Your task to perform on an android device: check google app version Image 0: 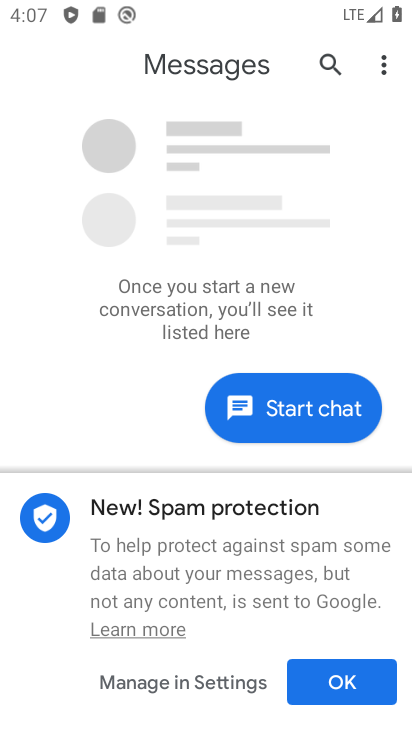
Step 0: press home button
Your task to perform on an android device: check google app version Image 1: 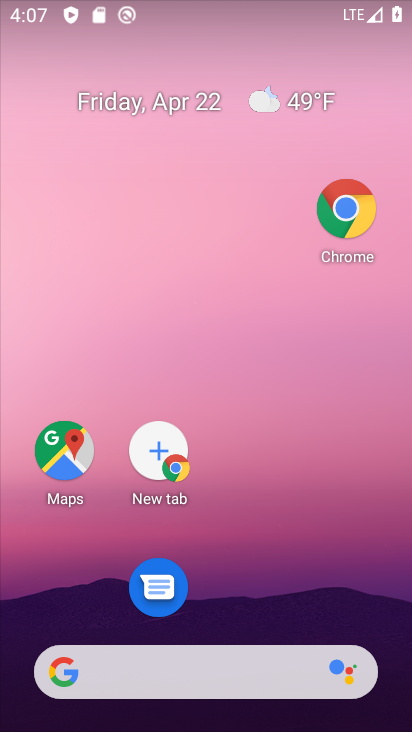
Step 1: click (176, 663)
Your task to perform on an android device: check google app version Image 2: 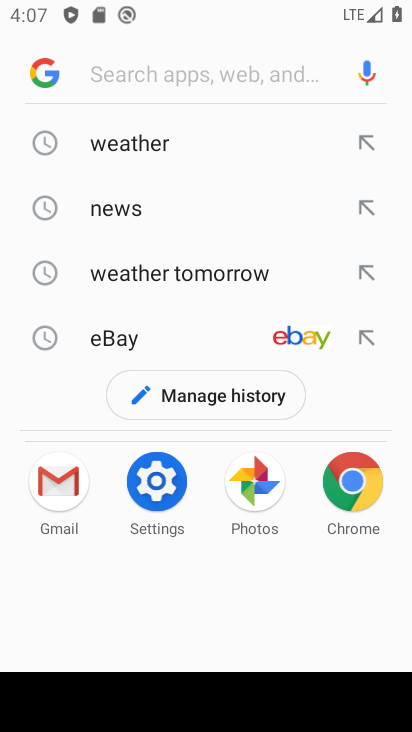
Step 2: click (44, 86)
Your task to perform on an android device: check google app version Image 3: 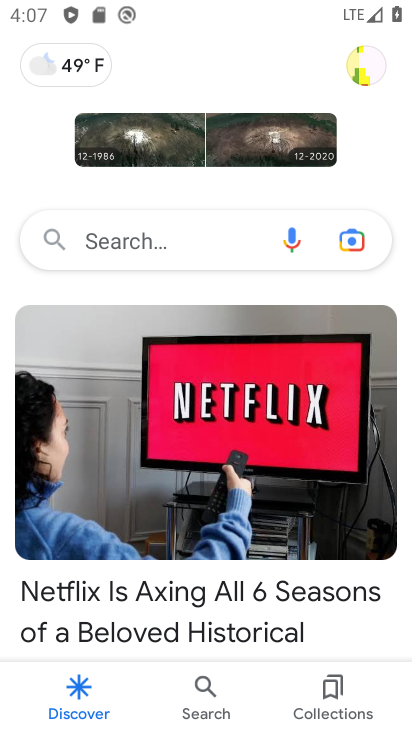
Step 3: click (385, 58)
Your task to perform on an android device: check google app version Image 4: 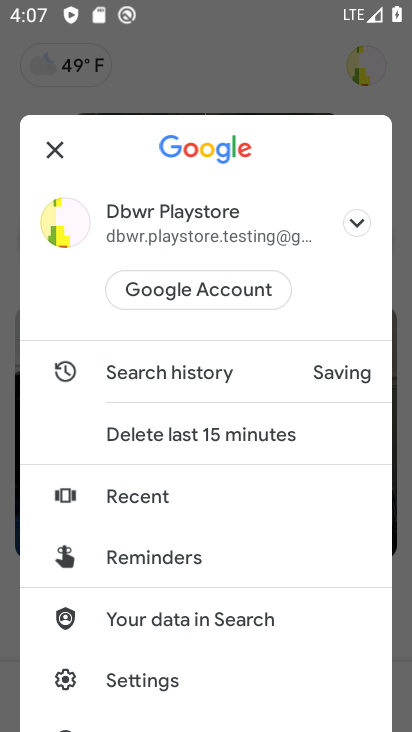
Step 4: click (152, 671)
Your task to perform on an android device: check google app version Image 5: 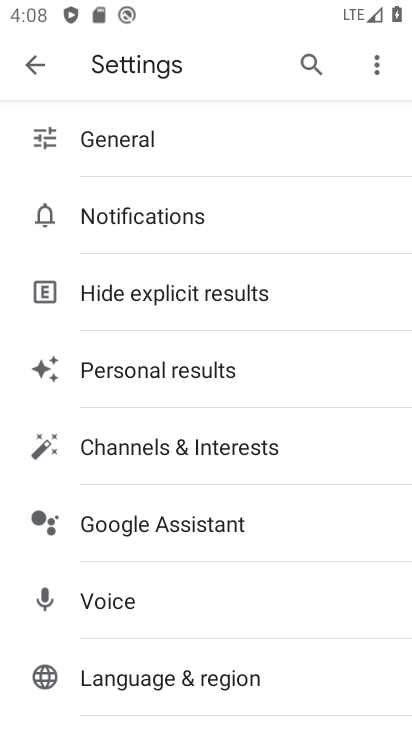
Step 5: drag from (217, 317) to (7, 695)
Your task to perform on an android device: check google app version Image 6: 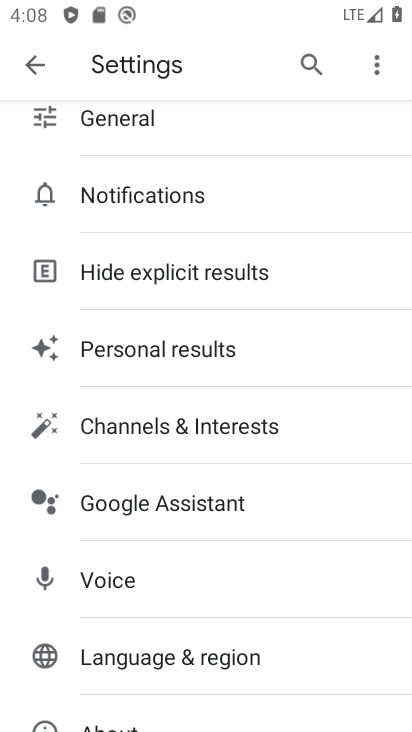
Step 6: drag from (235, 164) to (277, 685)
Your task to perform on an android device: check google app version Image 7: 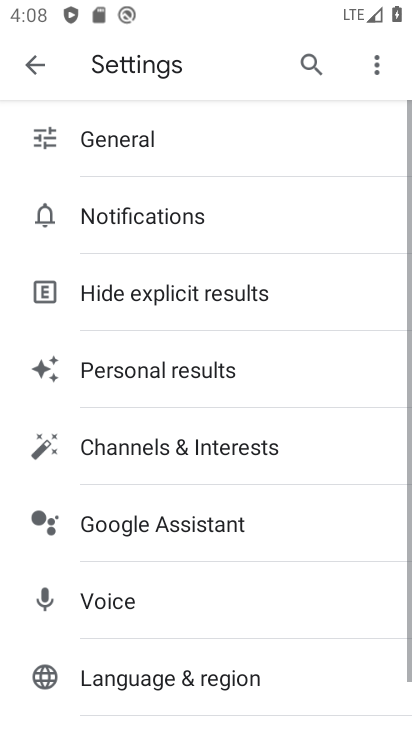
Step 7: drag from (152, 137) to (195, 625)
Your task to perform on an android device: check google app version Image 8: 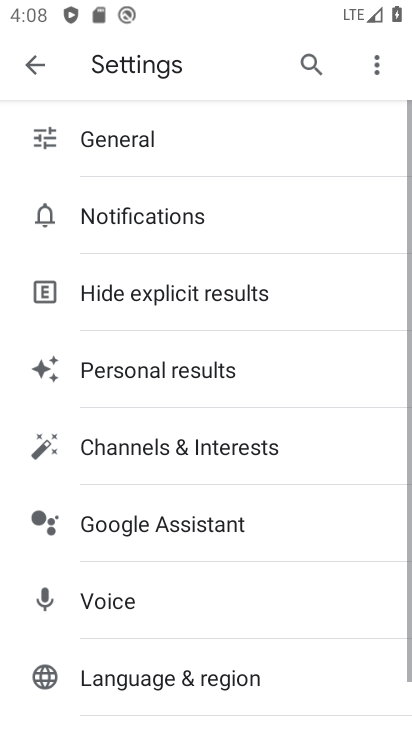
Step 8: drag from (90, 695) to (197, 23)
Your task to perform on an android device: check google app version Image 9: 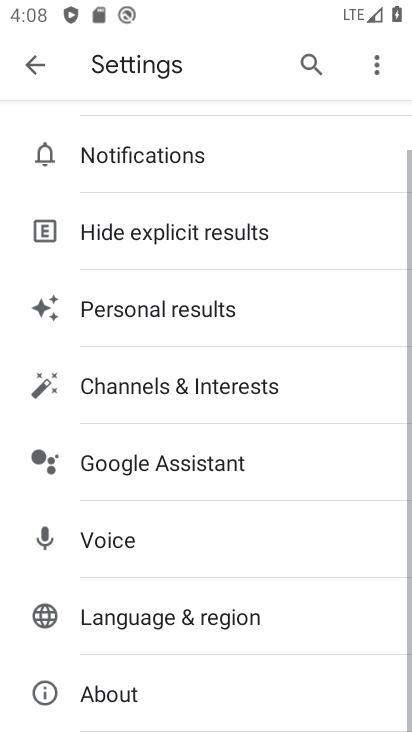
Step 9: click (82, 682)
Your task to perform on an android device: check google app version Image 10: 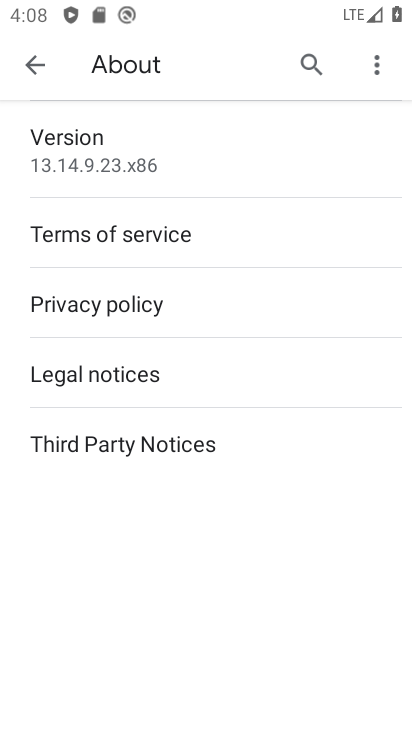
Step 10: task complete